Your task to perform on an android device: Do I have any events tomorrow? Image 0: 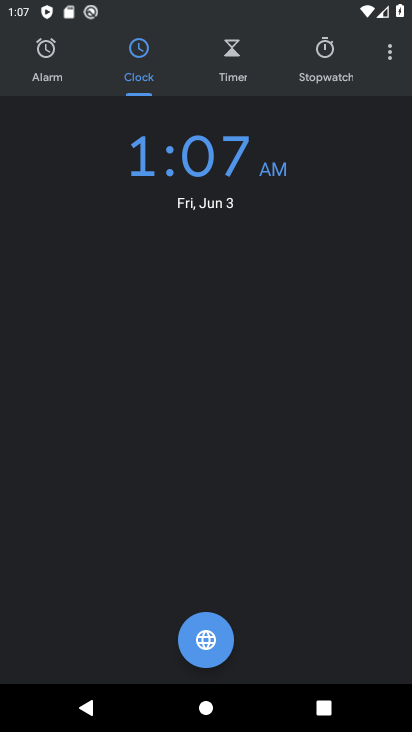
Step 0: press home button
Your task to perform on an android device: Do I have any events tomorrow? Image 1: 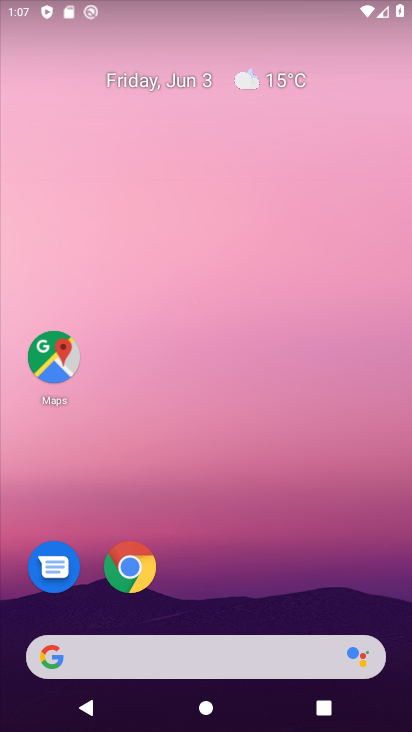
Step 1: drag from (279, 598) to (327, 65)
Your task to perform on an android device: Do I have any events tomorrow? Image 2: 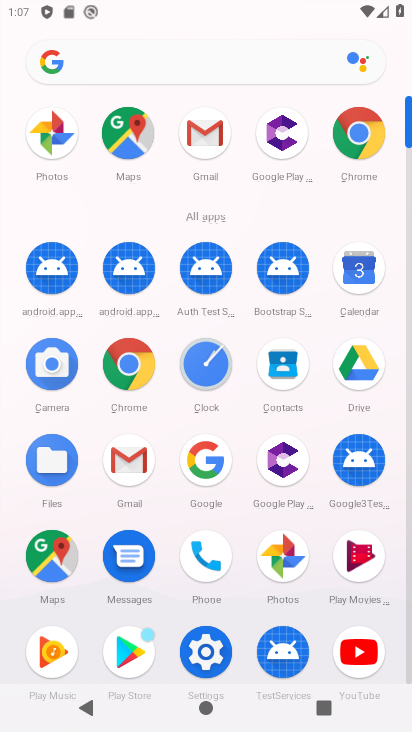
Step 2: click (359, 260)
Your task to perform on an android device: Do I have any events tomorrow? Image 3: 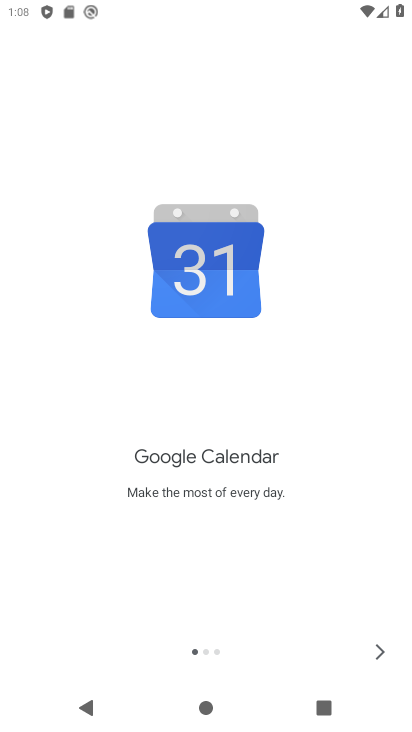
Step 3: click (372, 652)
Your task to perform on an android device: Do I have any events tomorrow? Image 4: 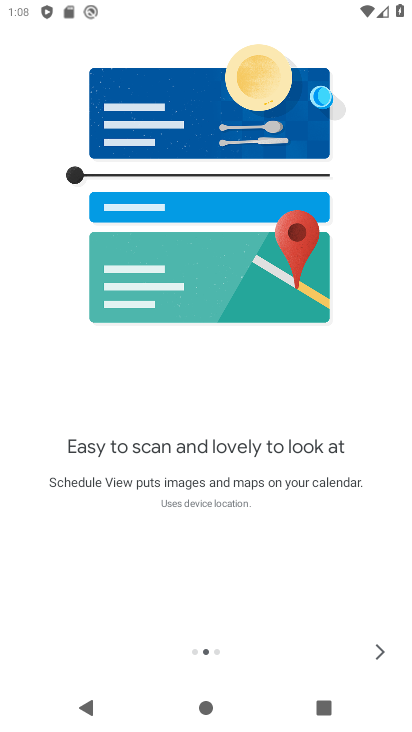
Step 4: click (372, 652)
Your task to perform on an android device: Do I have any events tomorrow? Image 5: 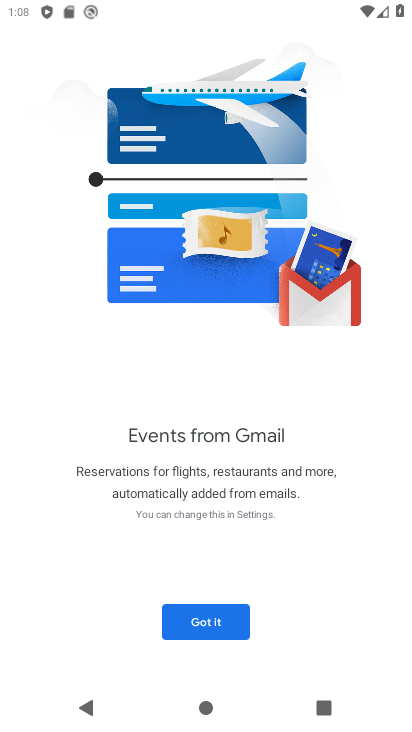
Step 5: click (217, 618)
Your task to perform on an android device: Do I have any events tomorrow? Image 6: 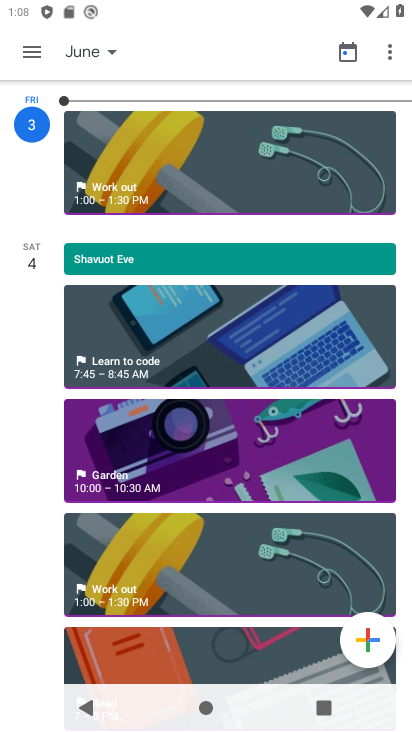
Step 6: click (100, 50)
Your task to perform on an android device: Do I have any events tomorrow? Image 7: 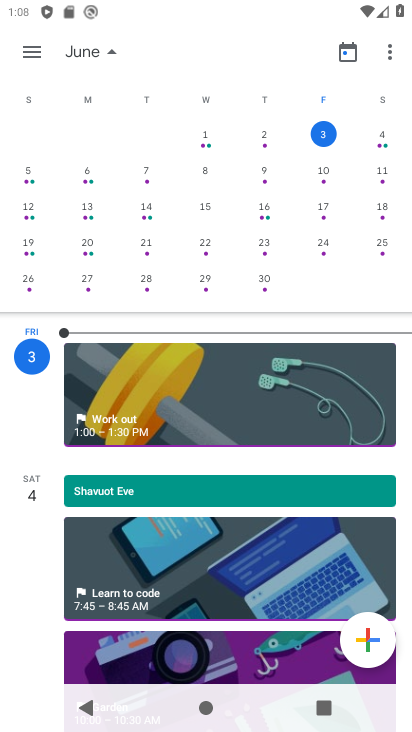
Step 7: click (384, 132)
Your task to perform on an android device: Do I have any events tomorrow? Image 8: 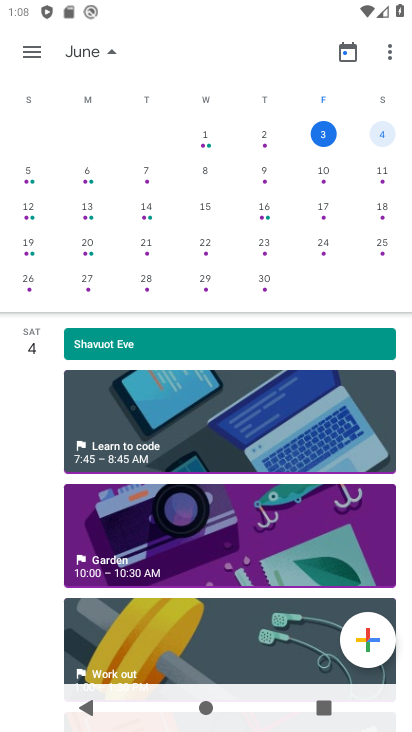
Step 8: task complete